Your task to perform on an android device: add a contact in the contacts app Image 0: 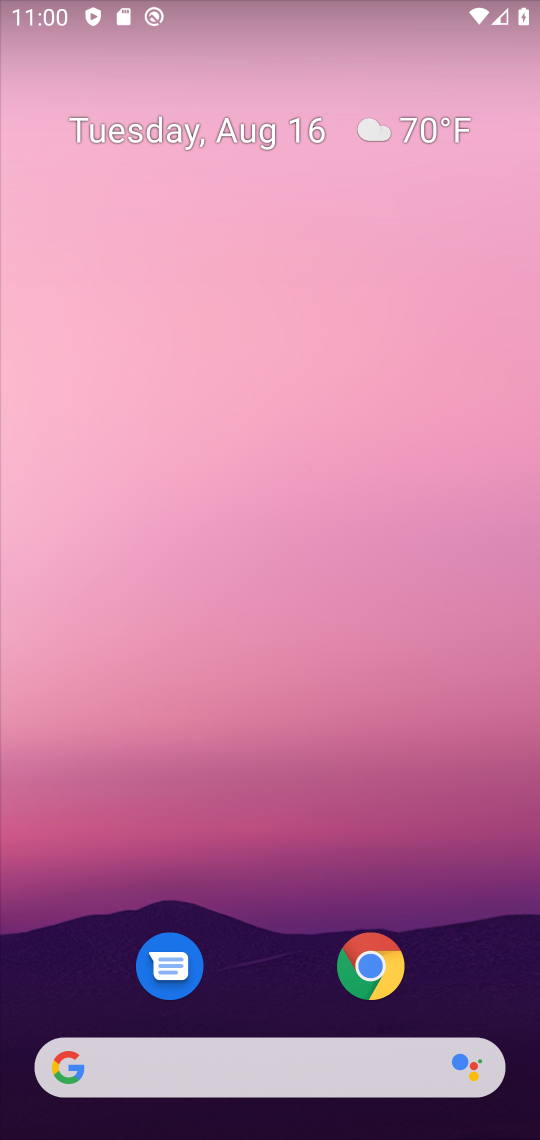
Step 0: drag from (255, 960) to (228, 2)
Your task to perform on an android device: add a contact in the contacts app Image 1: 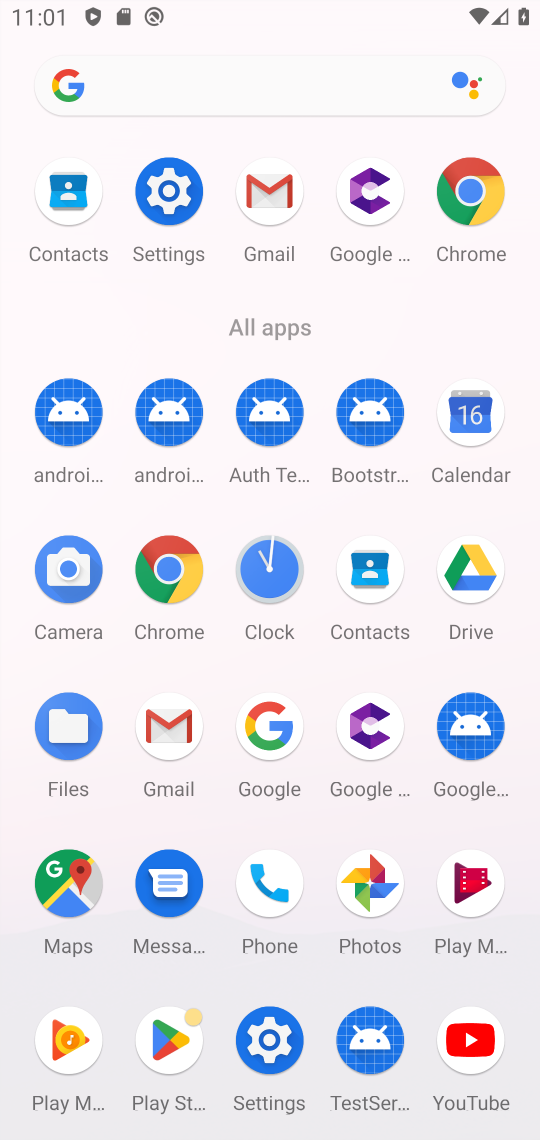
Step 1: click (358, 577)
Your task to perform on an android device: add a contact in the contacts app Image 2: 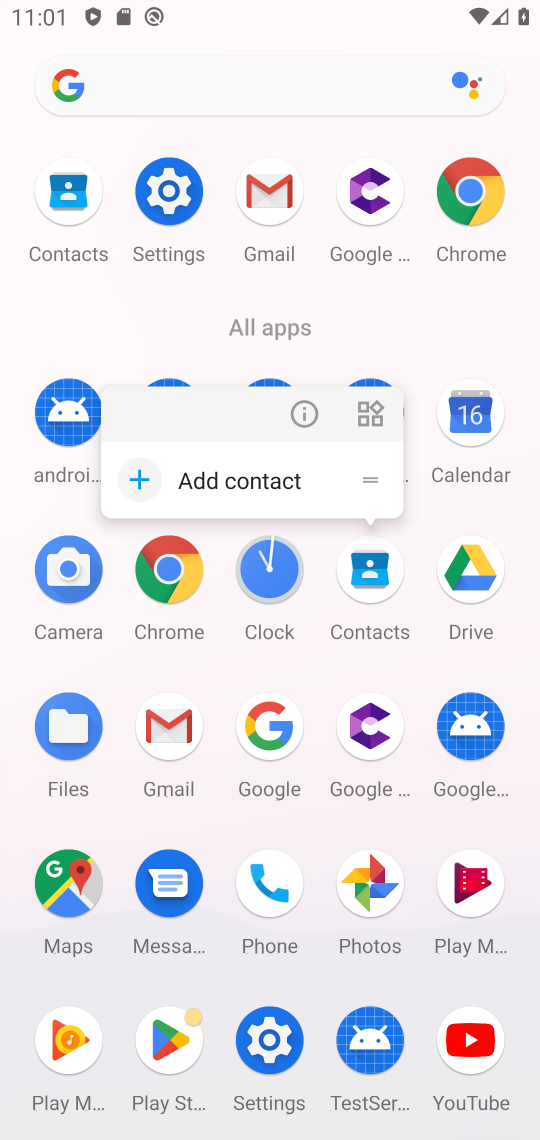
Step 2: click (364, 592)
Your task to perform on an android device: add a contact in the contacts app Image 3: 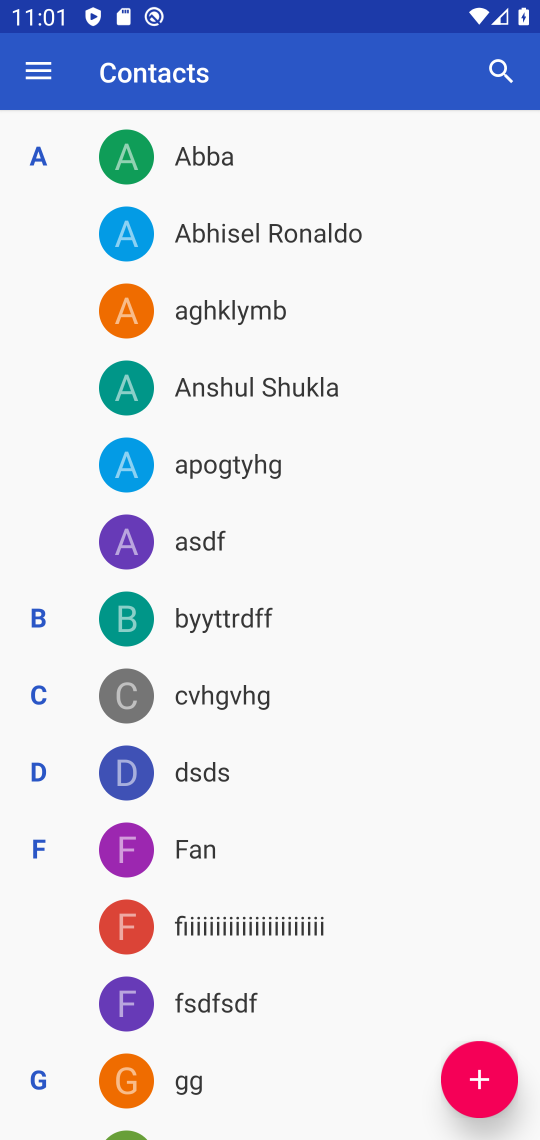
Step 3: click (476, 1105)
Your task to perform on an android device: add a contact in the contacts app Image 4: 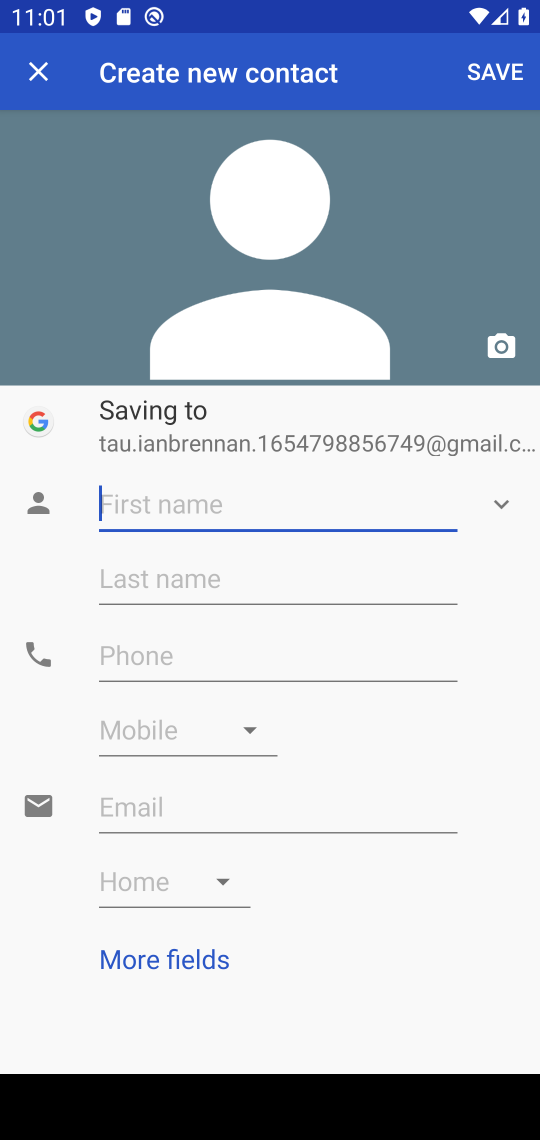
Step 4: type "southu"
Your task to perform on an android device: add a contact in the contacts app Image 5: 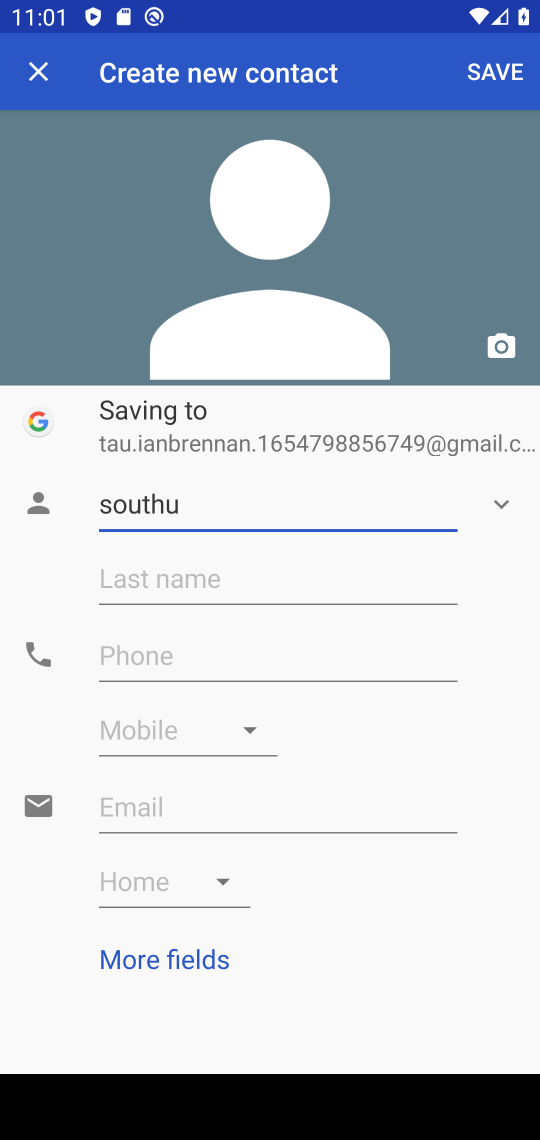
Step 5: click (494, 70)
Your task to perform on an android device: add a contact in the contacts app Image 6: 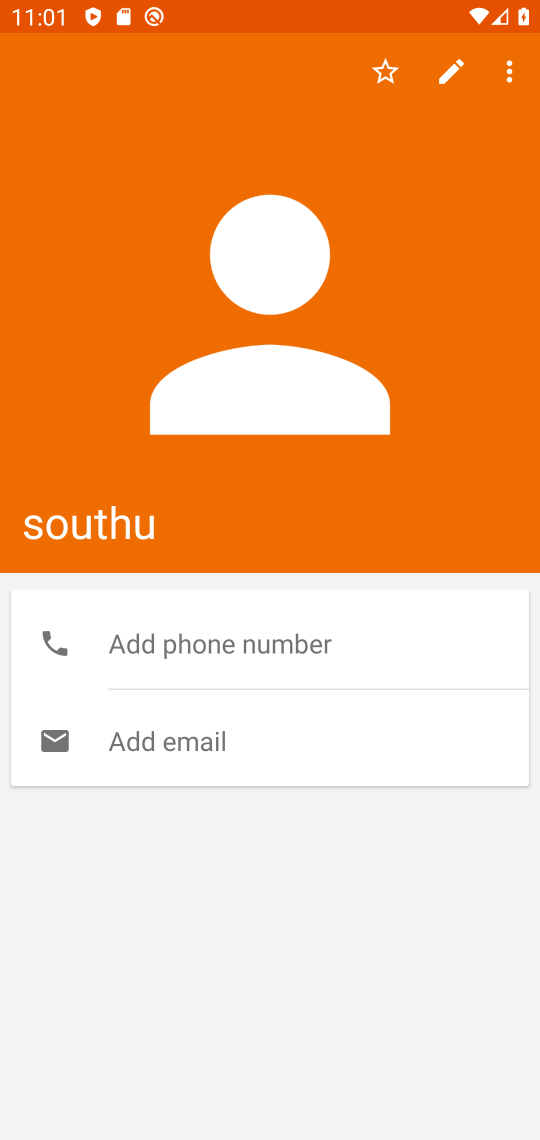
Step 6: task complete